Your task to perform on an android device: install app "Pandora - Music & Podcasts" Image 0: 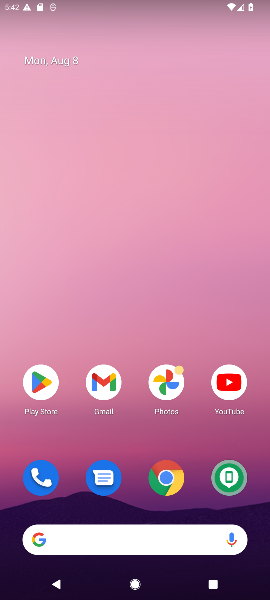
Step 0: click (39, 383)
Your task to perform on an android device: install app "Pandora - Music & Podcasts" Image 1: 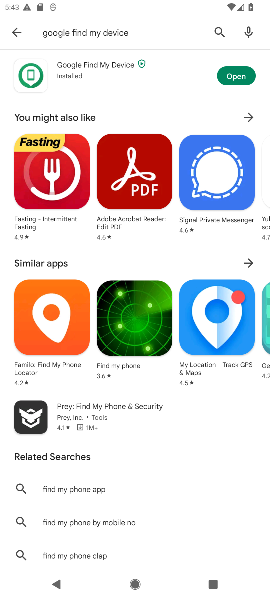
Step 1: click (220, 27)
Your task to perform on an android device: install app "Pandora - Music & Podcasts" Image 2: 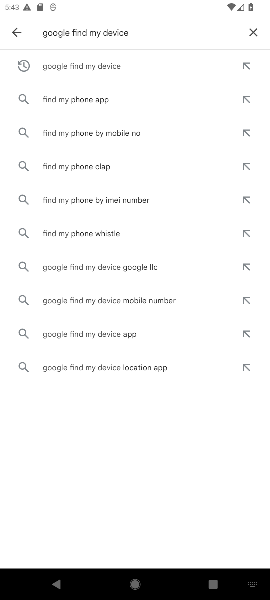
Step 2: click (255, 29)
Your task to perform on an android device: install app "Pandora - Music & Podcasts" Image 3: 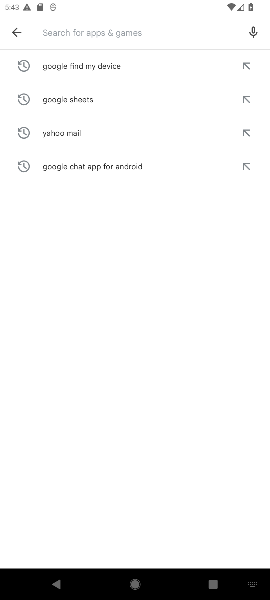
Step 3: type "Pandora - Music & Podcasts"
Your task to perform on an android device: install app "Pandora - Music & Podcasts" Image 4: 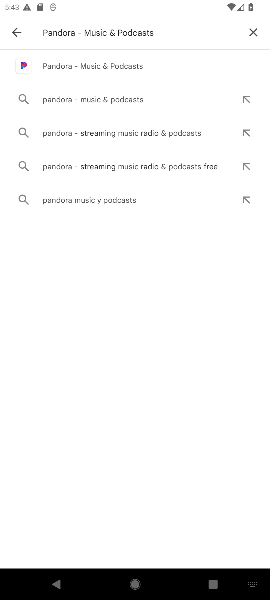
Step 4: click (120, 68)
Your task to perform on an android device: install app "Pandora - Music & Podcasts" Image 5: 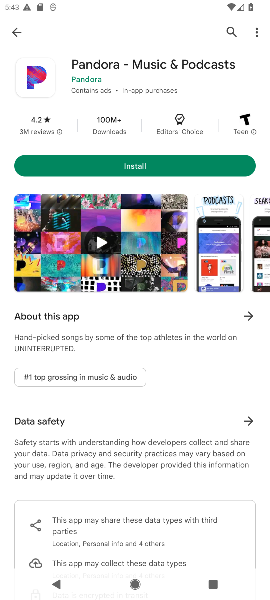
Step 5: click (129, 169)
Your task to perform on an android device: install app "Pandora - Music & Podcasts" Image 6: 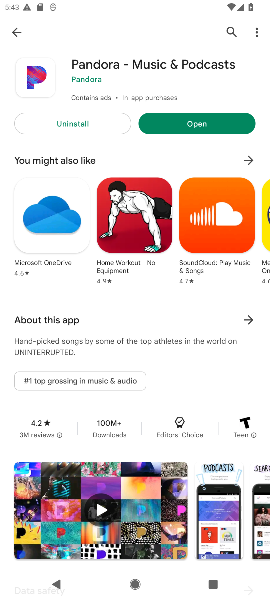
Step 6: task complete